Your task to perform on an android device: Search for pizza restaurants on Maps Image 0: 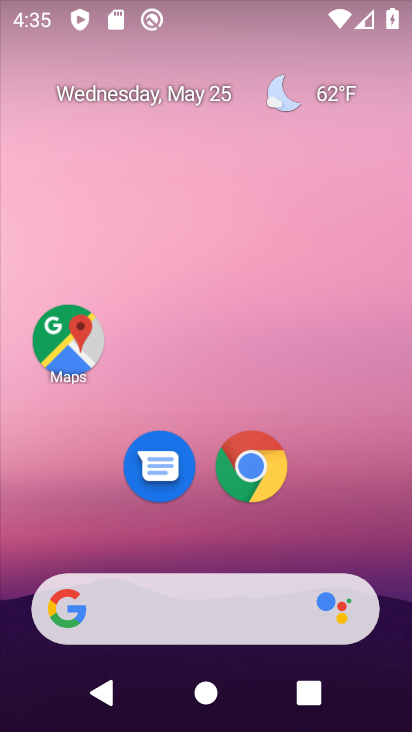
Step 0: click (66, 342)
Your task to perform on an android device: Search for pizza restaurants on Maps Image 1: 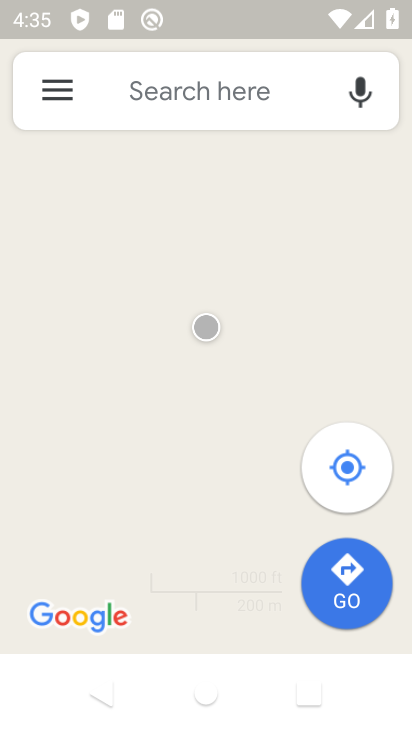
Step 1: click (185, 88)
Your task to perform on an android device: Search for pizza restaurants on Maps Image 2: 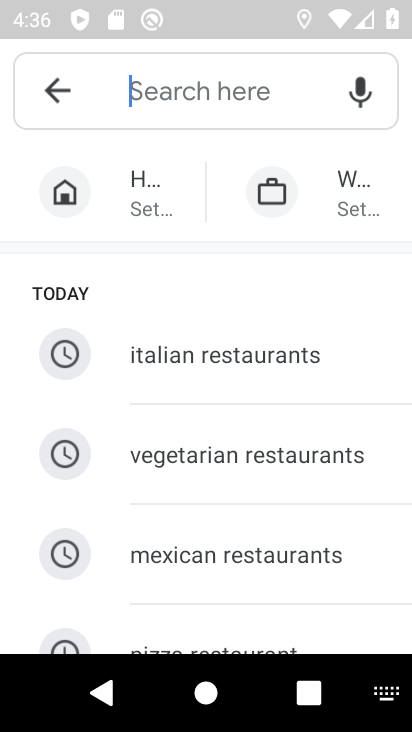
Step 2: type "pizza restaurants"
Your task to perform on an android device: Search for pizza restaurants on Maps Image 3: 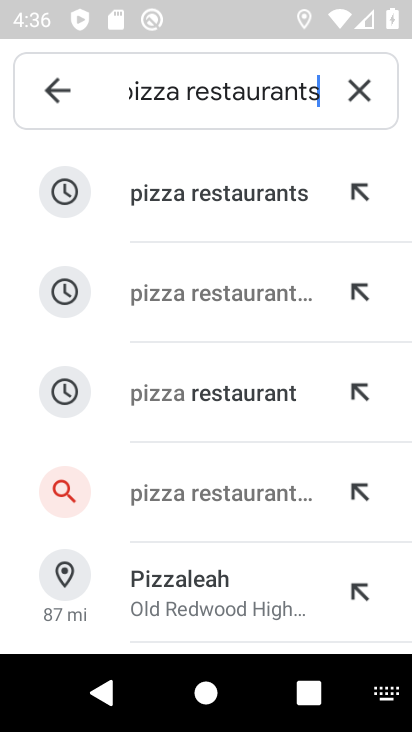
Step 3: click (250, 192)
Your task to perform on an android device: Search for pizza restaurants on Maps Image 4: 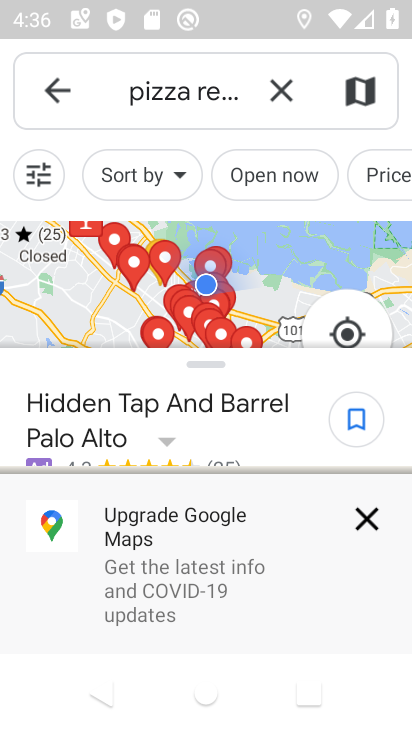
Step 4: click (373, 514)
Your task to perform on an android device: Search for pizza restaurants on Maps Image 5: 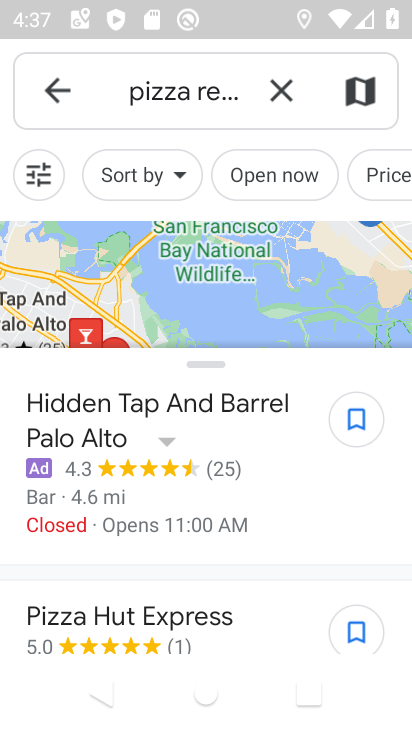
Step 5: task complete